Your task to perform on an android device: toggle sleep mode Image 0: 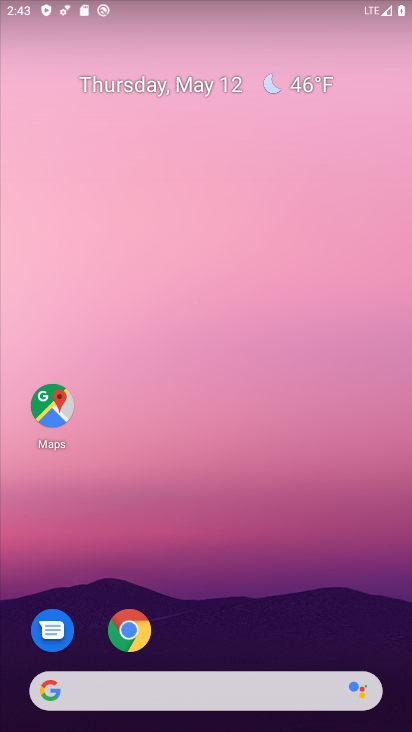
Step 0: drag from (274, 561) to (282, 118)
Your task to perform on an android device: toggle sleep mode Image 1: 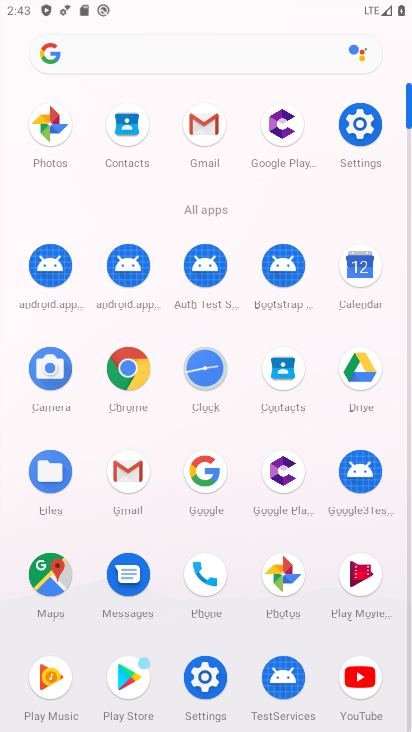
Step 1: click (347, 131)
Your task to perform on an android device: toggle sleep mode Image 2: 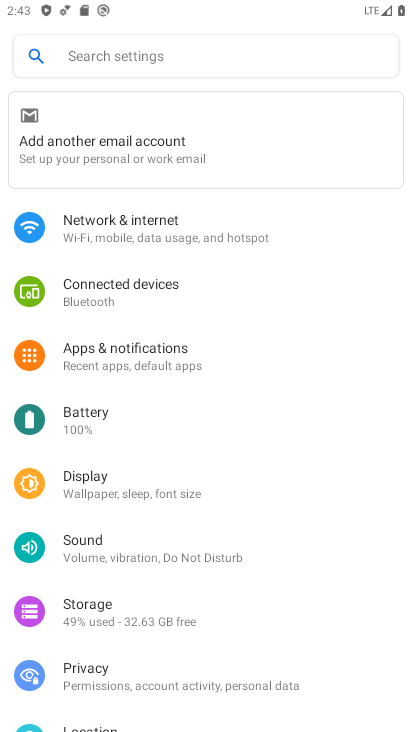
Step 2: click (171, 492)
Your task to perform on an android device: toggle sleep mode Image 3: 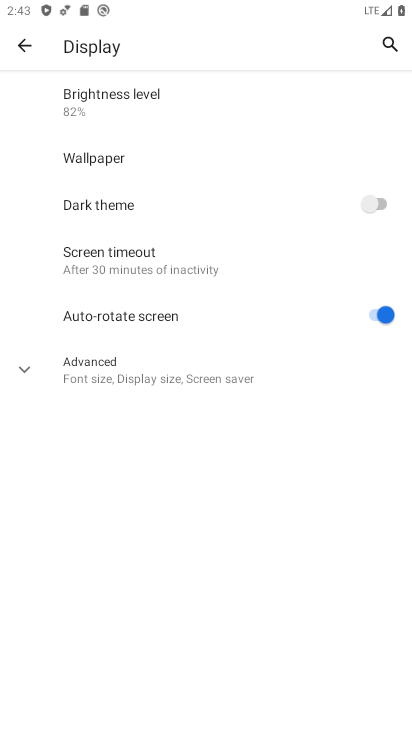
Step 3: click (161, 377)
Your task to perform on an android device: toggle sleep mode Image 4: 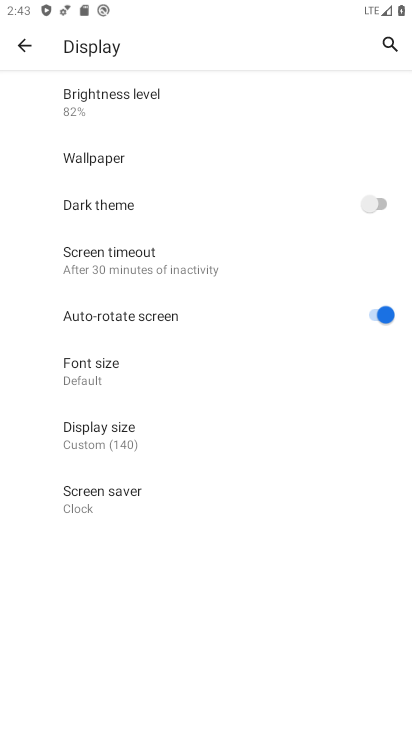
Step 4: task complete